Your task to perform on an android device: Open Chrome and go to settings Image 0: 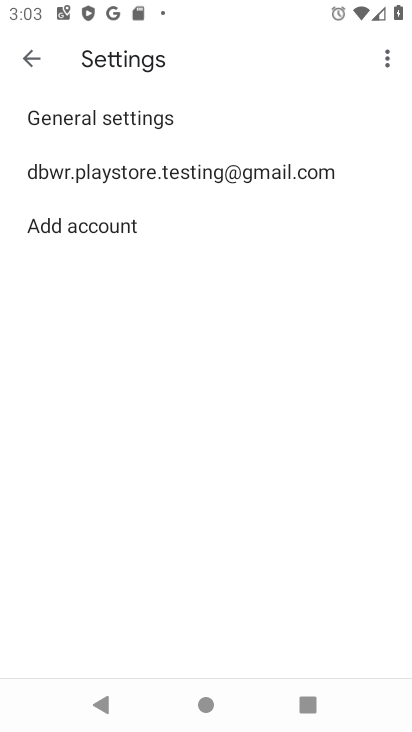
Step 0: press home button
Your task to perform on an android device: Open Chrome and go to settings Image 1: 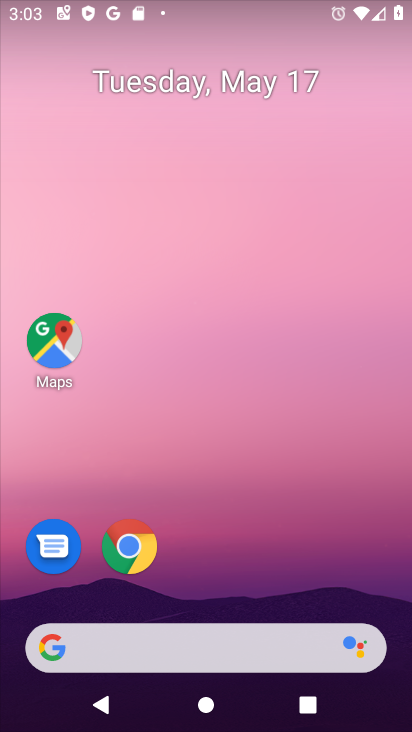
Step 1: click (136, 541)
Your task to perform on an android device: Open Chrome and go to settings Image 2: 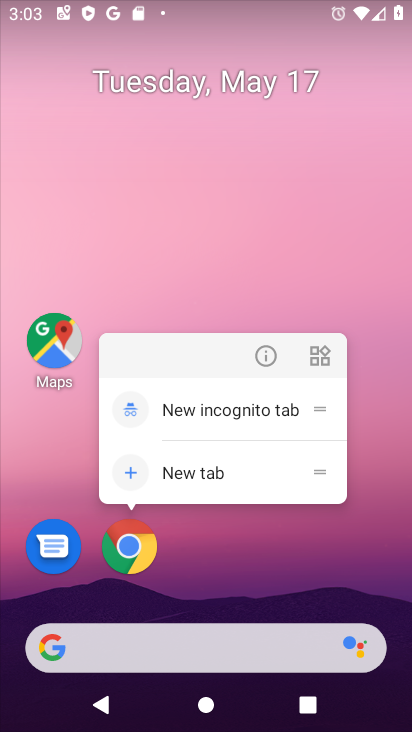
Step 2: click (135, 538)
Your task to perform on an android device: Open Chrome and go to settings Image 3: 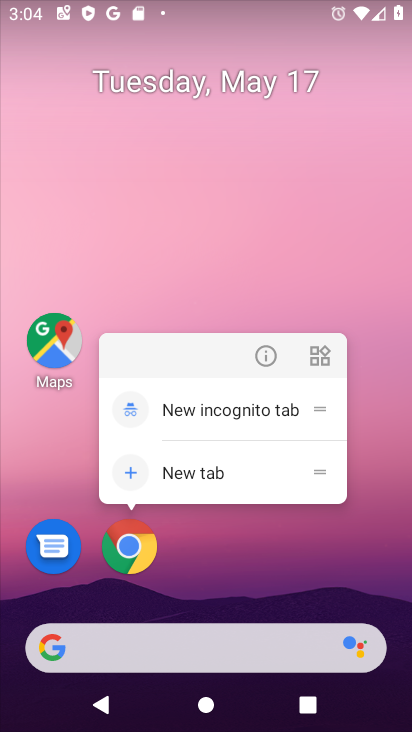
Step 3: click (135, 538)
Your task to perform on an android device: Open Chrome and go to settings Image 4: 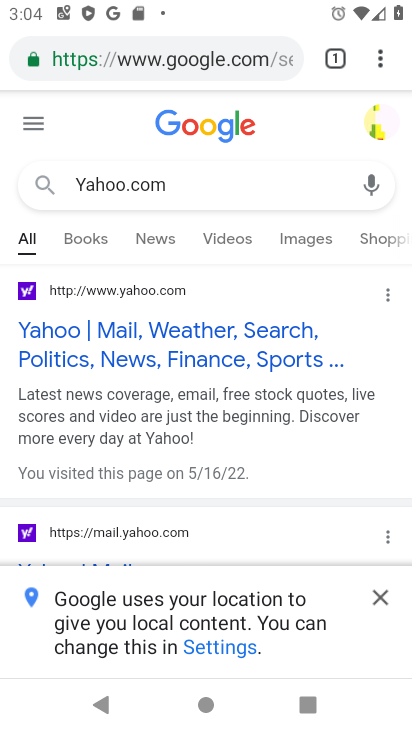
Step 4: click (382, 54)
Your task to perform on an android device: Open Chrome and go to settings Image 5: 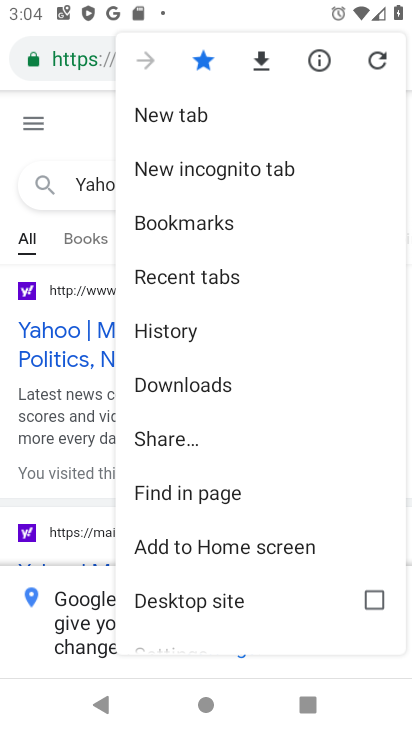
Step 5: drag from (290, 597) to (312, 421)
Your task to perform on an android device: Open Chrome and go to settings Image 6: 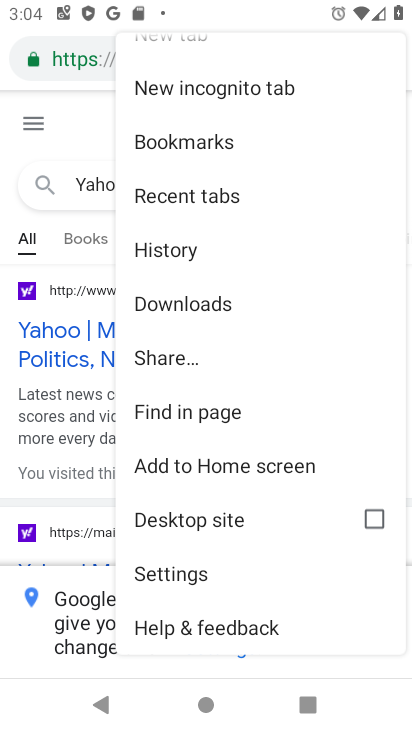
Step 6: click (162, 572)
Your task to perform on an android device: Open Chrome and go to settings Image 7: 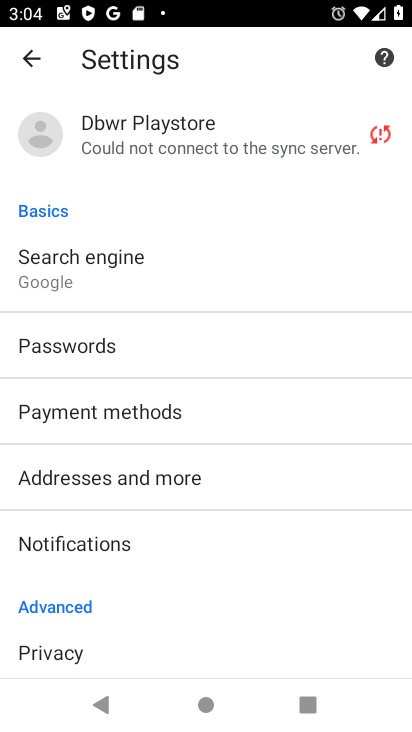
Step 7: task complete